Your task to perform on an android device: star an email in the gmail app Image 0: 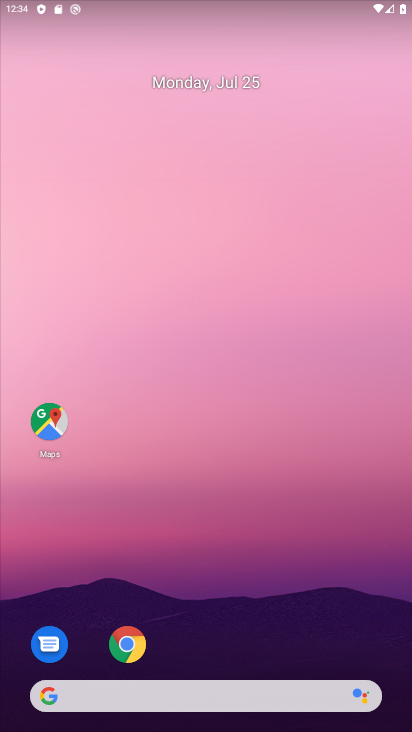
Step 0: drag from (212, 722) to (211, 108)
Your task to perform on an android device: star an email in the gmail app Image 1: 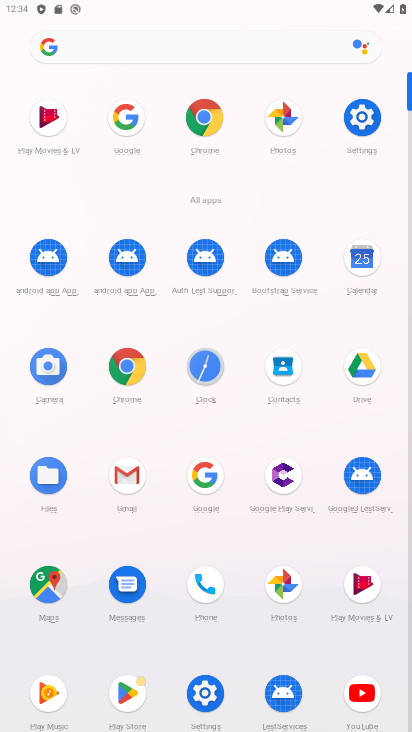
Step 1: click (135, 466)
Your task to perform on an android device: star an email in the gmail app Image 2: 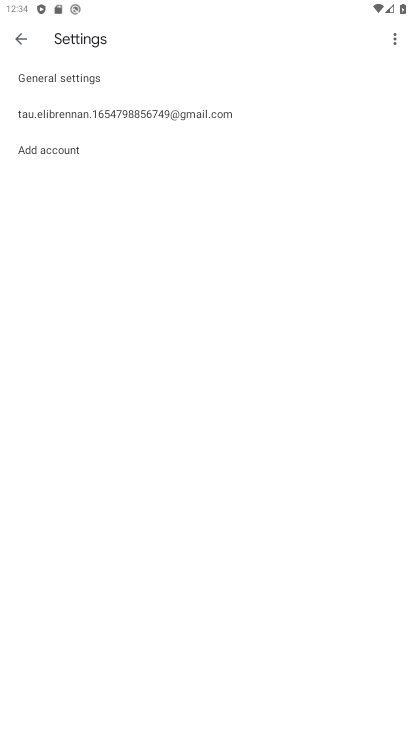
Step 2: click (25, 38)
Your task to perform on an android device: star an email in the gmail app Image 3: 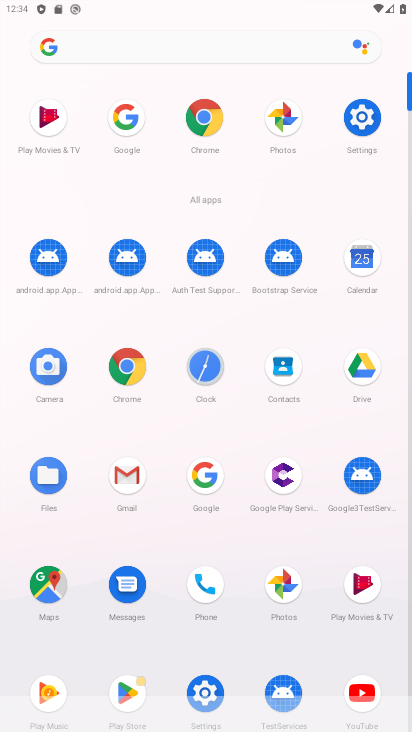
Step 3: click (125, 476)
Your task to perform on an android device: star an email in the gmail app Image 4: 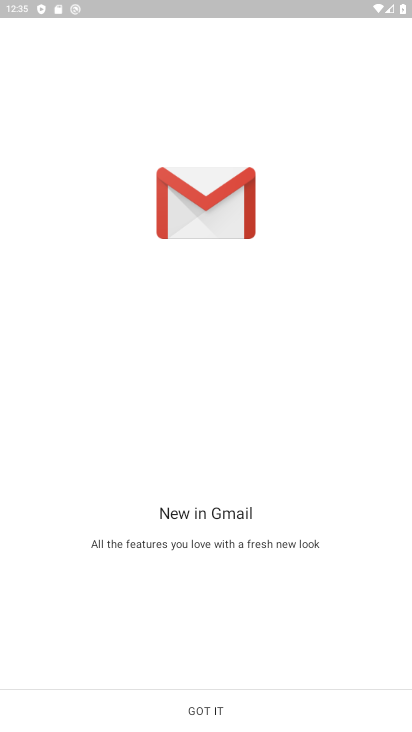
Step 4: click (198, 702)
Your task to perform on an android device: star an email in the gmail app Image 5: 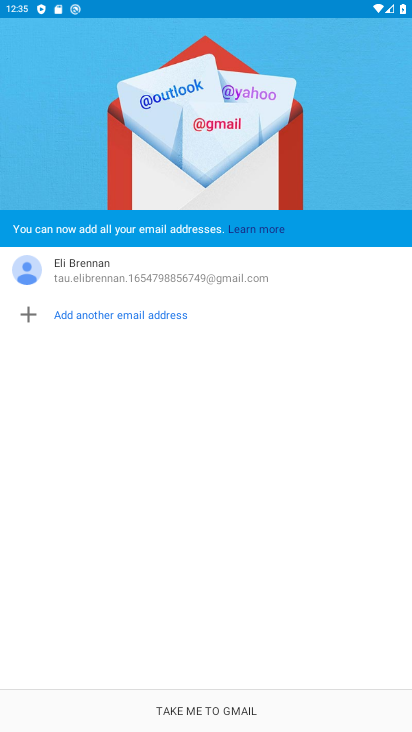
Step 5: click (198, 703)
Your task to perform on an android device: star an email in the gmail app Image 6: 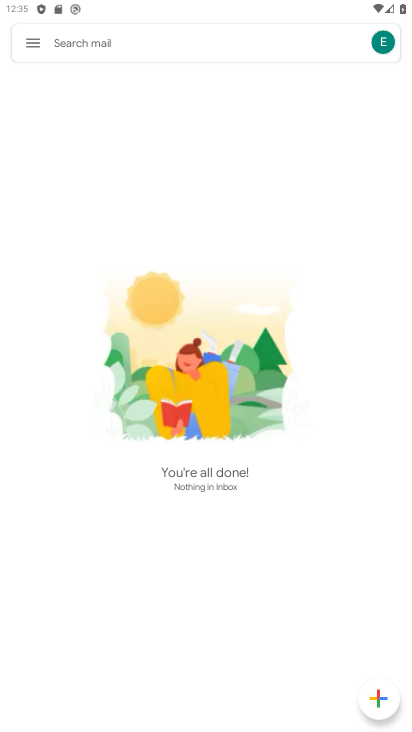
Step 6: click (29, 42)
Your task to perform on an android device: star an email in the gmail app Image 7: 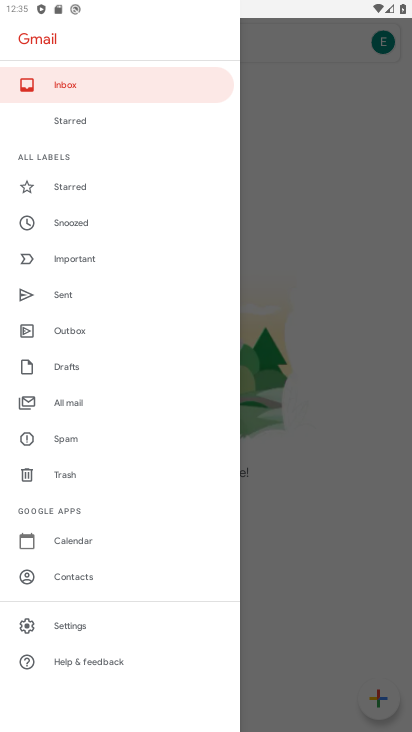
Step 7: click (262, 297)
Your task to perform on an android device: star an email in the gmail app Image 8: 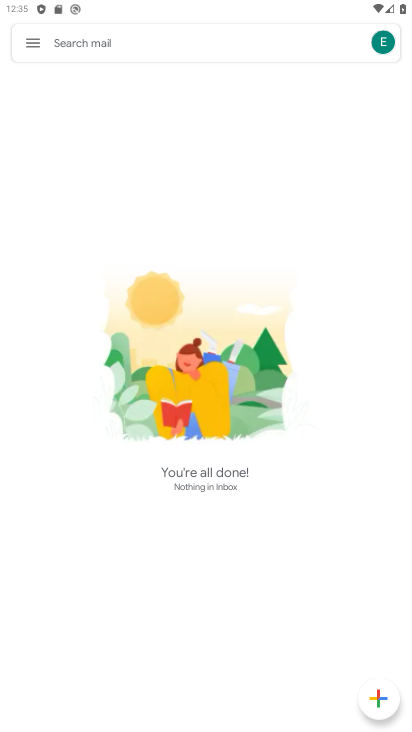
Step 8: task complete